Your task to perform on an android device: snooze an email in the gmail app Image 0: 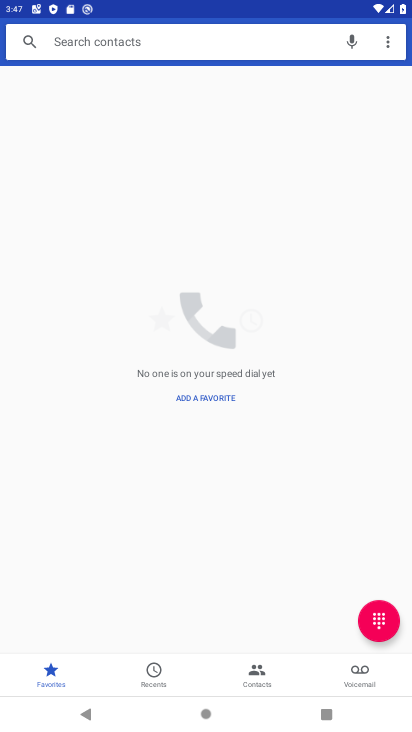
Step 0: press home button
Your task to perform on an android device: snooze an email in the gmail app Image 1: 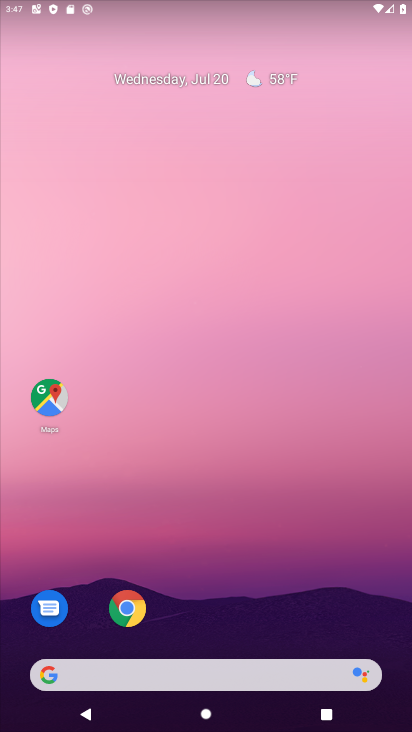
Step 1: drag from (264, 610) to (184, 136)
Your task to perform on an android device: snooze an email in the gmail app Image 2: 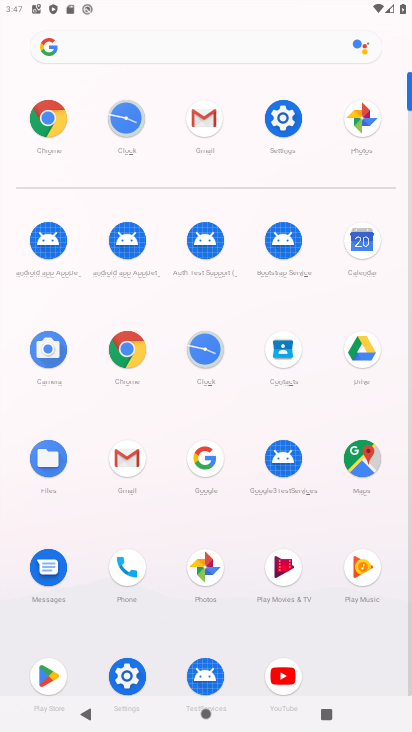
Step 2: click (199, 110)
Your task to perform on an android device: snooze an email in the gmail app Image 3: 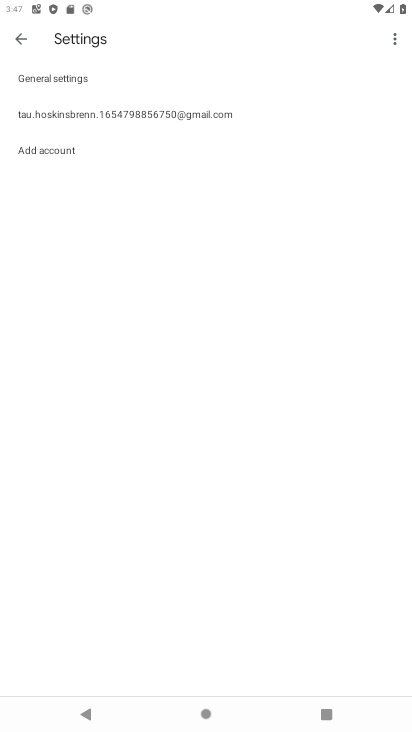
Step 3: click (19, 42)
Your task to perform on an android device: snooze an email in the gmail app Image 4: 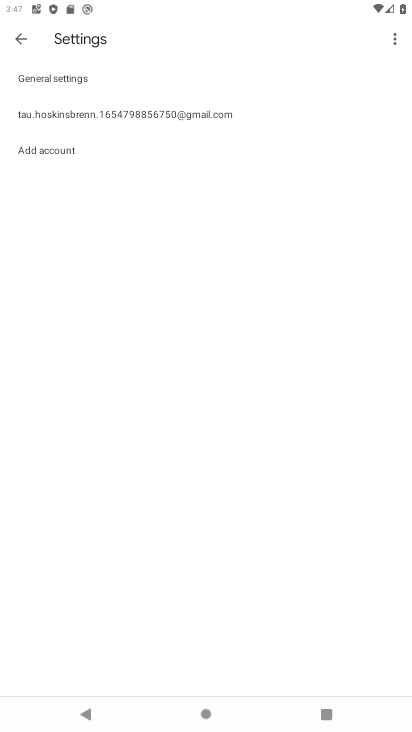
Step 4: click (28, 43)
Your task to perform on an android device: snooze an email in the gmail app Image 5: 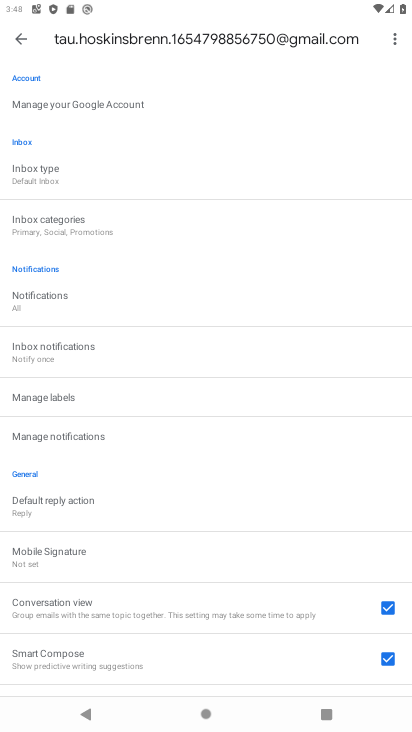
Step 5: task complete